Your task to perform on an android device: move an email to a new category in the gmail app Image 0: 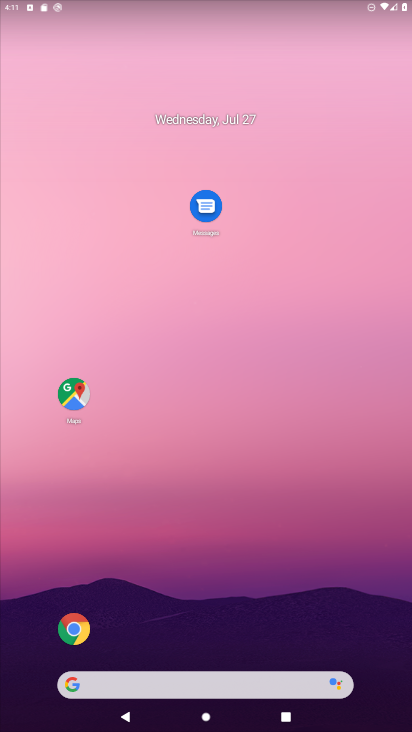
Step 0: drag from (159, 628) to (113, 170)
Your task to perform on an android device: move an email to a new category in the gmail app Image 1: 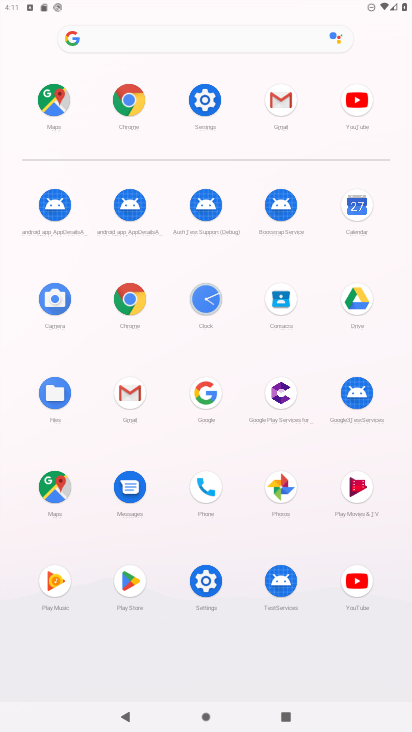
Step 1: click (278, 100)
Your task to perform on an android device: move an email to a new category in the gmail app Image 2: 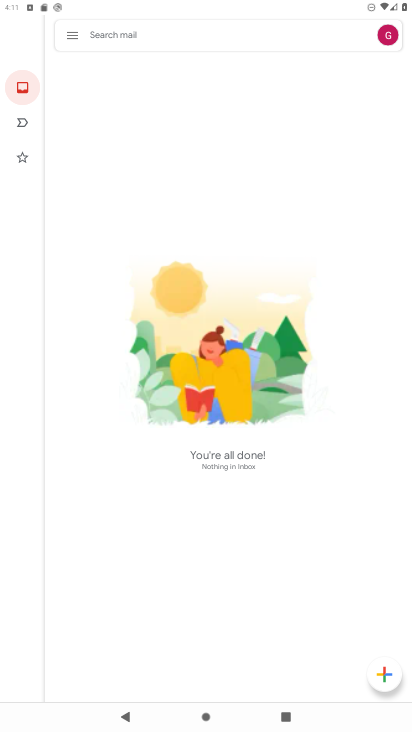
Step 2: task complete